Your task to perform on an android device: Open Yahoo.com Image 0: 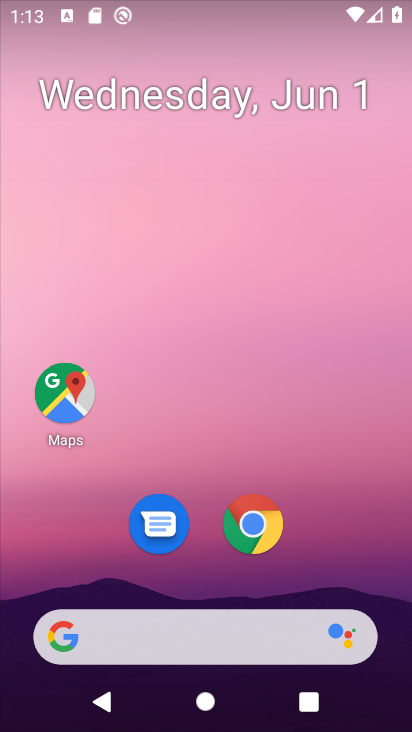
Step 0: click (238, 630)
Your task to perform on an android device: Open Yahoo.com Image 1: 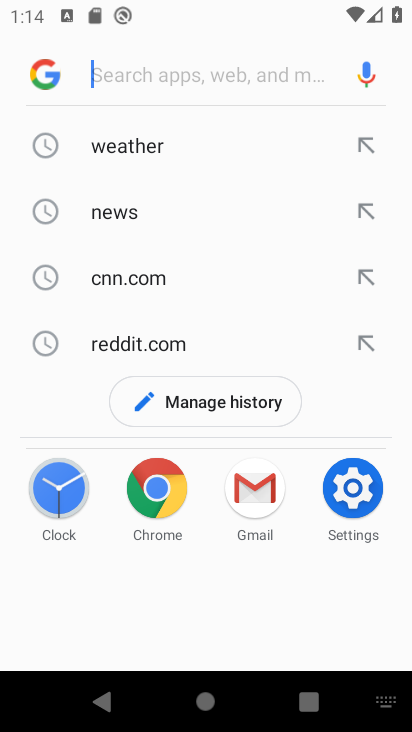
Step 1: type "yahoo.com"
Your task to perform on an android device: Open Yahoo.com Image 2: 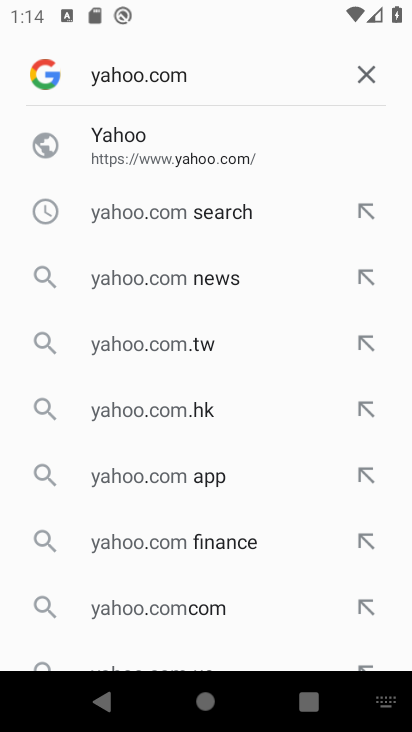
Step 2: click (137, 140)
Your task to perform on an android device: Open Yahoo.com Image 3: 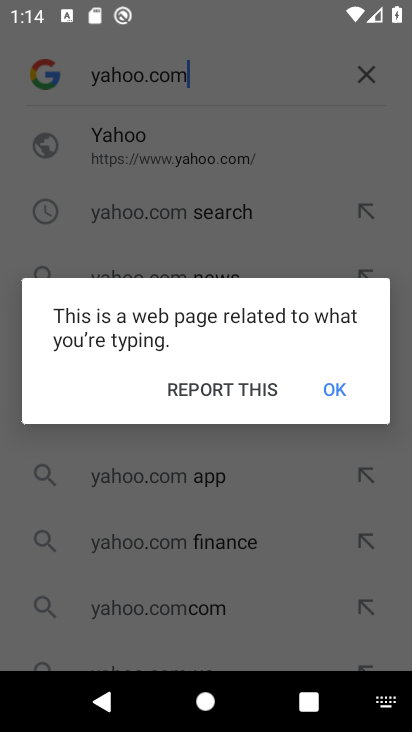
Step 3: click (333, 389)
Your task to perform on an android device: Open Yahoo.com Image 4: 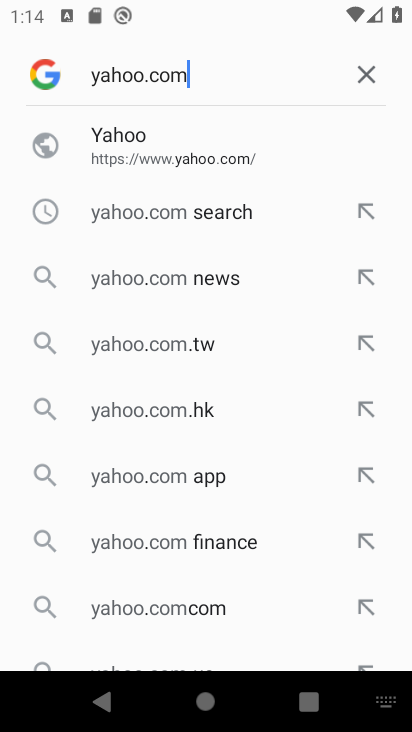
Step 4: click (111, 154)
Your task to perform on an android device: Open Yahoo.com Image 5: 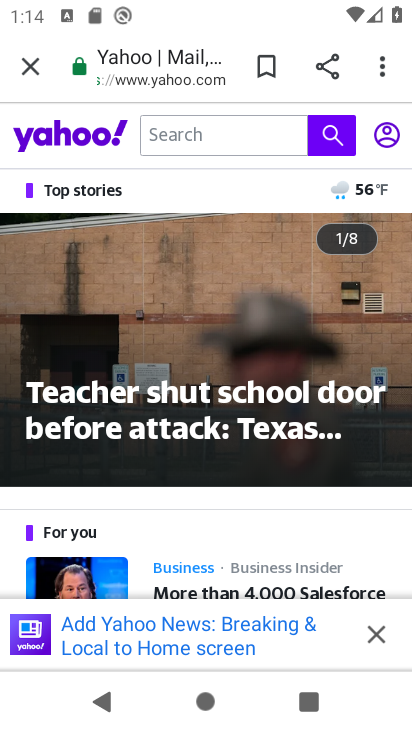
Step 5: task complete